Your task to perform on an android device: clear all cookies in the chrome app Image 0: 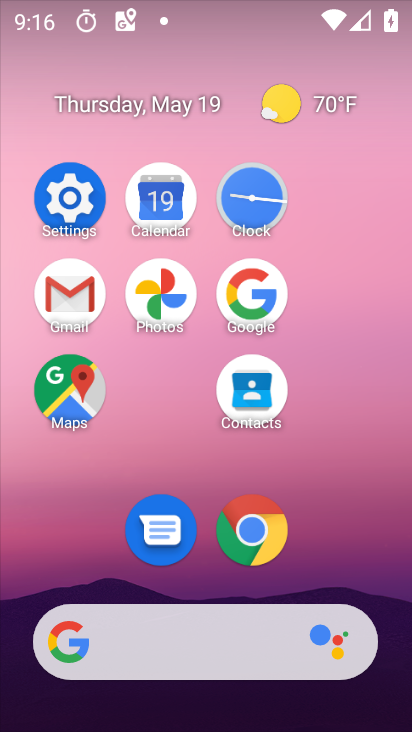
Step 0: click (271, 541)
Your task to perform on an android device: clear all cookies in the chrome app Image 1: 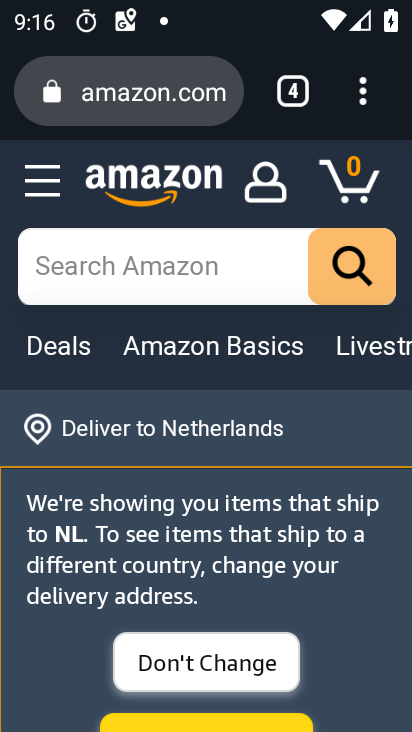
Step 1: click (365, 92)
Your task to perform on an android device: clear all cookies in the chrome app Image 2: 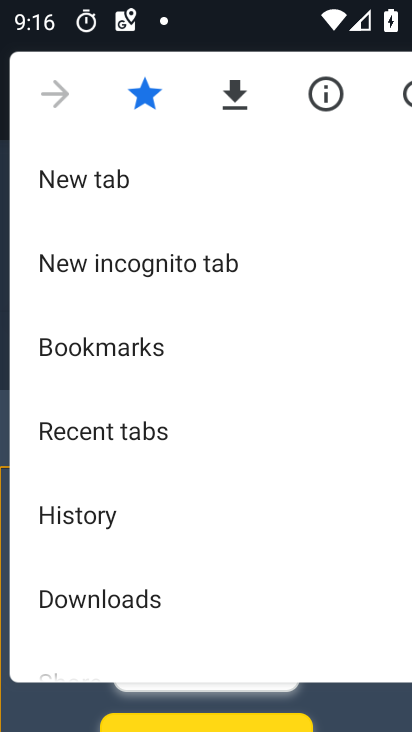
Step 2: drag from (192, 540) to (195, 121)
Your task to perform on an android device: clear all cookies in the chrome app Image 3: 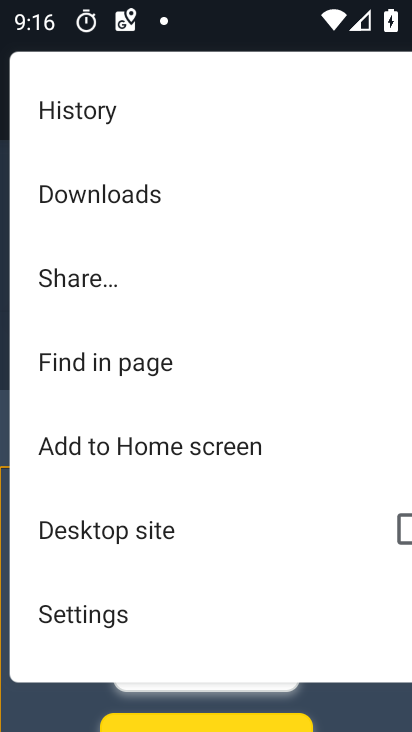
Step 3: drag from (227, 556) to (218, 230)
Your task to perform on an android device: clear all cookies in the chrome app Image 4: 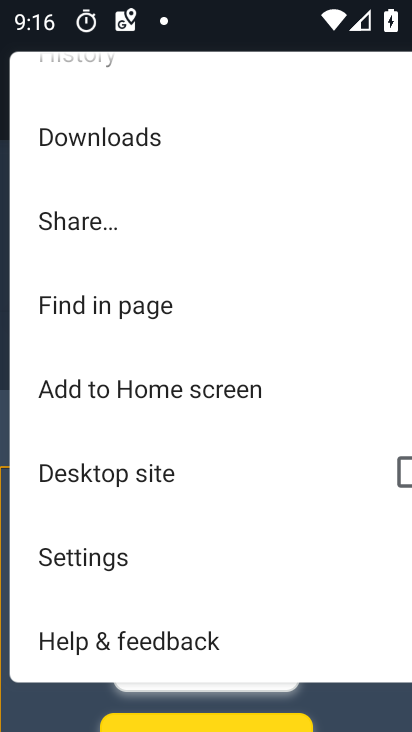
Step 4: click (166, 546)
Your task to perform on an android device: clear all cookies in the chrome app Image 5: 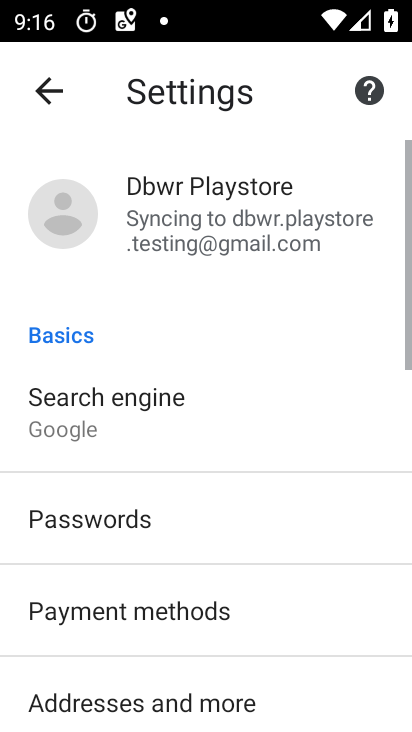
Step 5: drag from (218, 492) to (236, 91)
Your task to perform on an android device: clear all cookies in the chrome app Image 6: 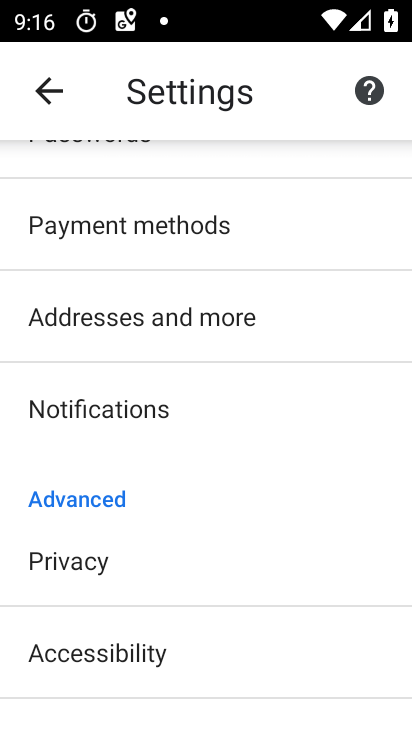
Step 6: drag from (198, 541) to (200, 112)
Your task to perform on an android device: clear all cookies in the chrome app Image 7: 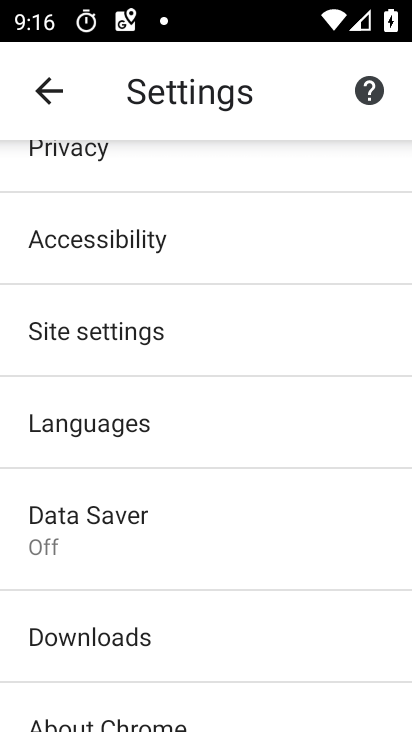
Step 7: click (192, 333)
Your task to perform on an android device: clear all cookies in the chrome app Image 8: 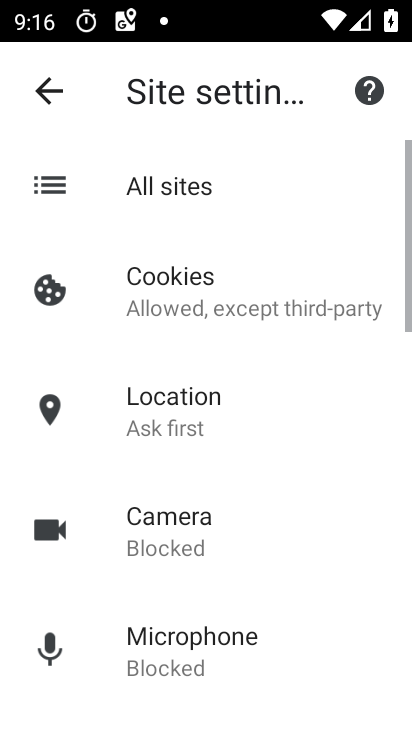
Step 8: click (312, 285)
Your task to perform on an android device: clear all cookies in the chrome app Image 9: 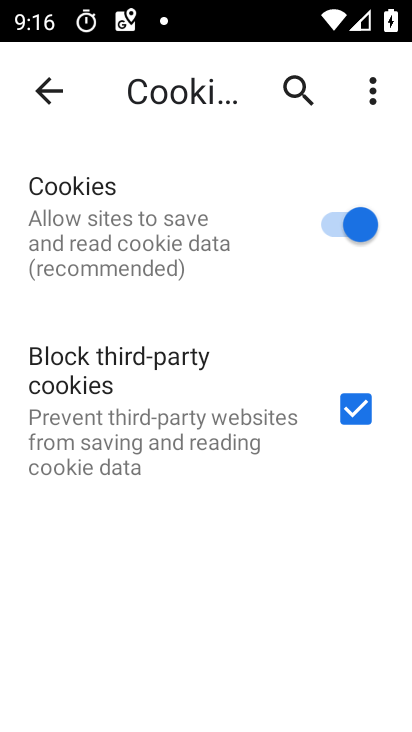
Step 9: task complete